Your task to perform on an android device: Open location settings Image 0: 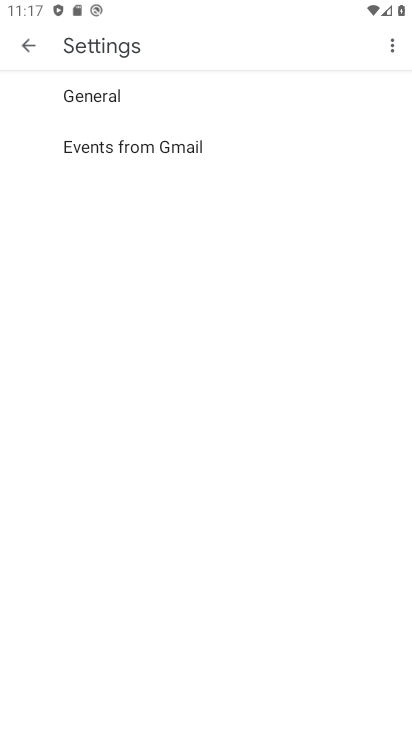
Step 0: press back button
Your task to perform on an android device: Open location settings Image 1: 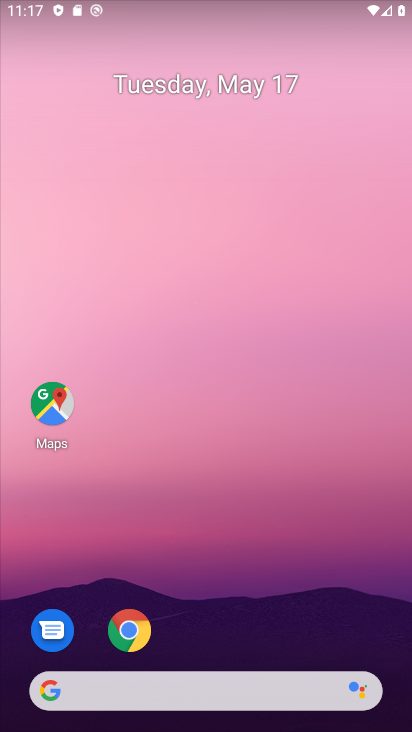
Step 1: drag from (186, 643) to (240, 144)
Your task to perform on an android device: Open location settings Image 2: 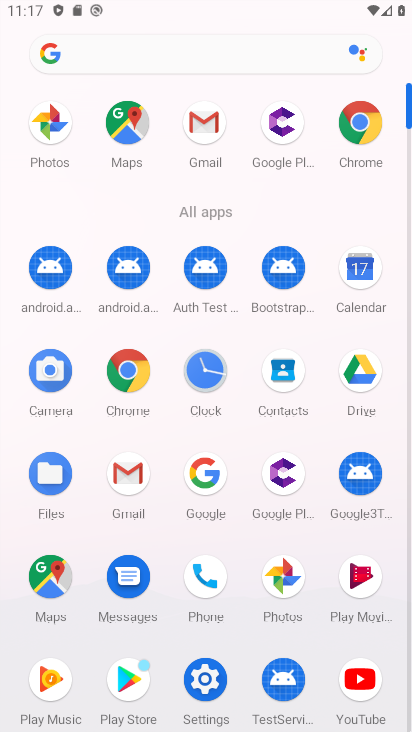
Step 2: click (217, 695)
Your task to perform on an android device: Open location settings Image 3: 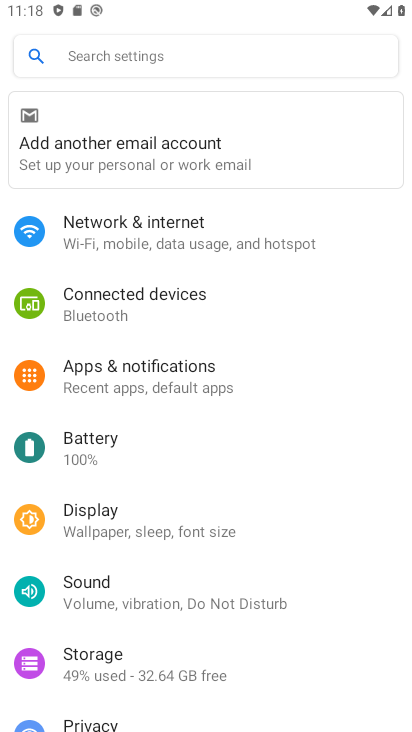
Step 3: drag from (173, 675) to (232, 227)
Your task to perform on an android device: Open location settings Image 4: 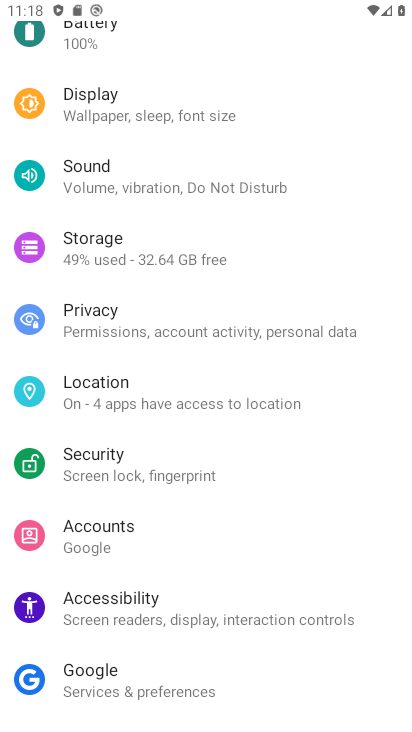
Step 4: click (120, 386)
Your task to perform on an android device: Open location settings Image 5: 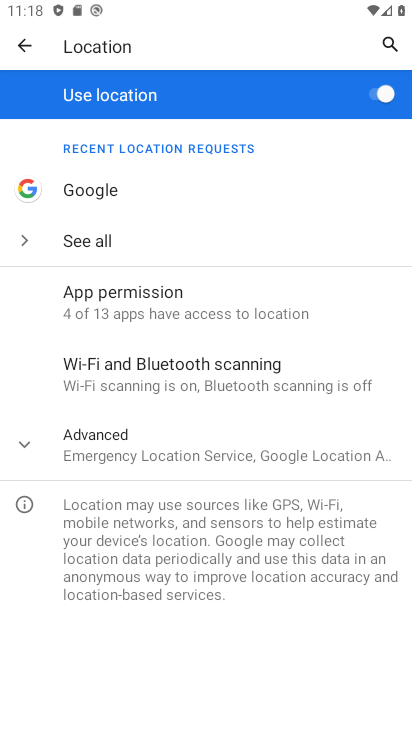
Step 5: task complete